Your task to perform on an android device: Is it going to rain this weekend? Image 0: 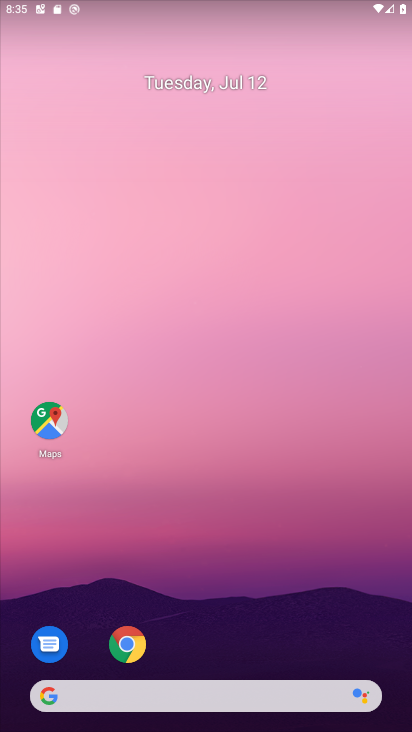
Step 0: drag from (341, 556) to (340, 80)
Your task to perform on an android device: Is it going to rain this weekend? Image 1: 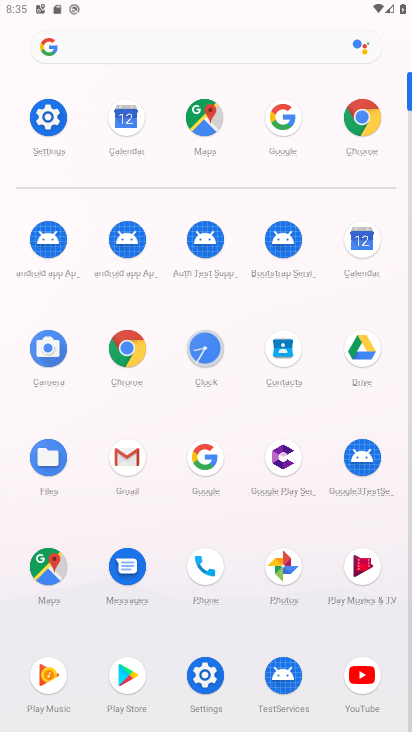
Step 1: click (301, 127)
Your task to perform on an android device: Is it going to rain this weekend? Image 2: 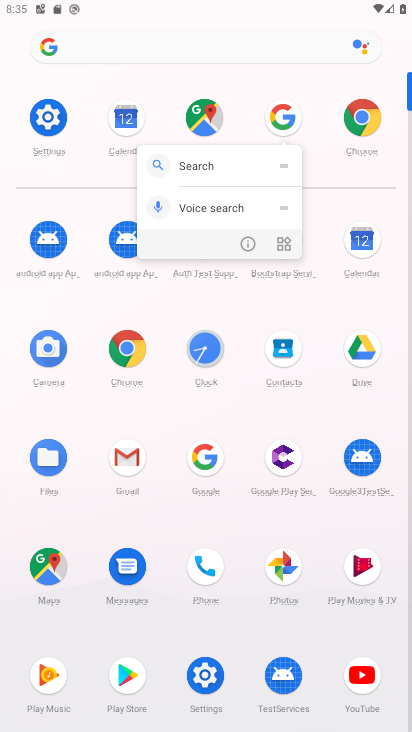
Step 2: click (299, 126)
Your task to perform on an android device: Is it going to rain this weekend? Image 3: 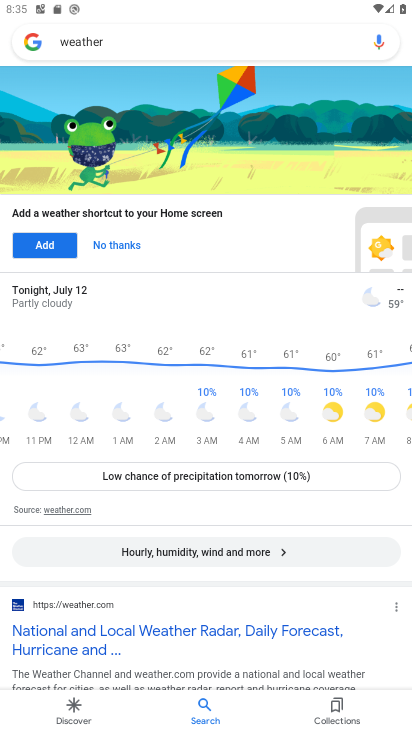
Step 3: task complete